Your task to perform on an android device: Show me popular games on the Play Store Image 0: 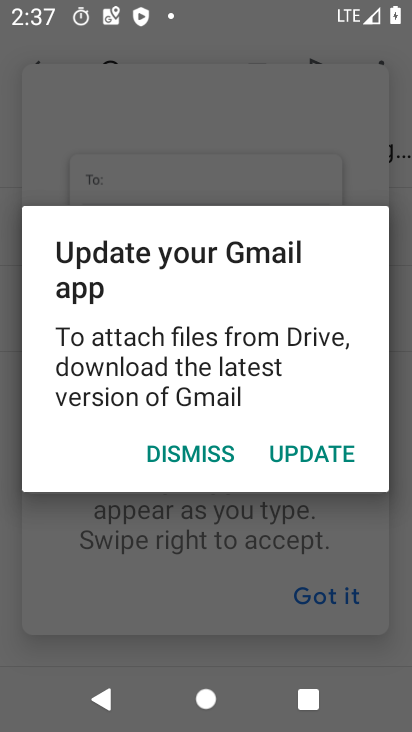
Step 0: drag from (369, 520) to (378, 334)
Your task to perform on an android device: Show me popular games on the Play Store Image 1: 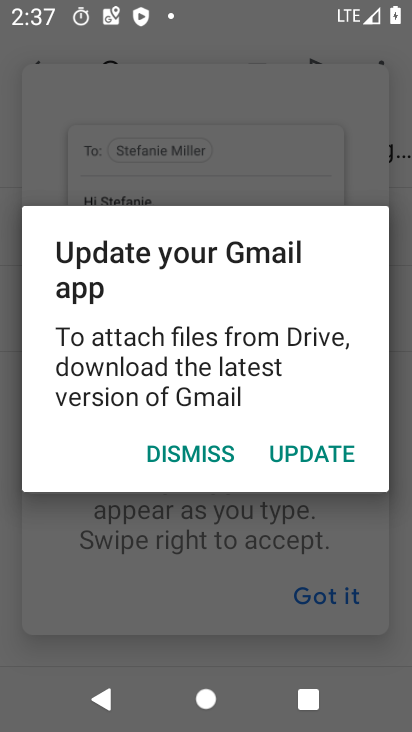
Step 1: press home button
Your task to perform on an android device: Show me popular games on the Play Store Image 2: 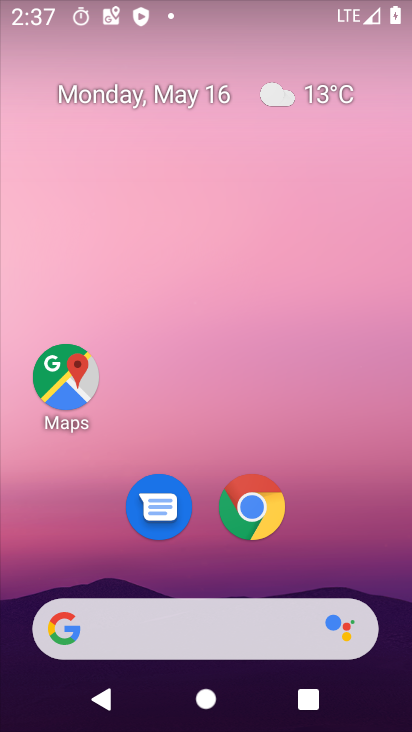
Step 2: drag from (368, 528) to (380, 129)
Your task to perform on an android device: Show me popular games on the Play Store Image 3: 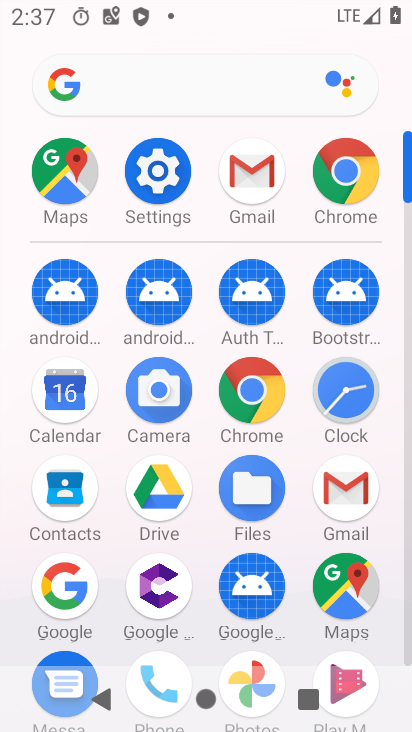
Step 3: drag from (201, 641) to (196, 278)
Your task to perform on an android device: Show me popular games on the Play Store Image 4: 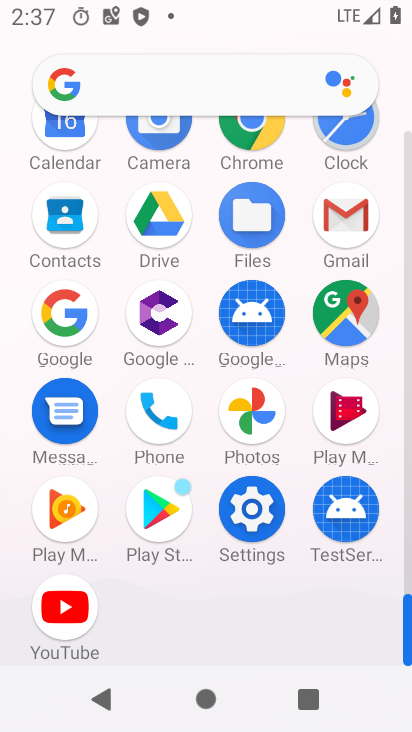
Step 4: click (163, 529)
Your task to perform on an android device: Show me popular games on the Play Store Image 5: 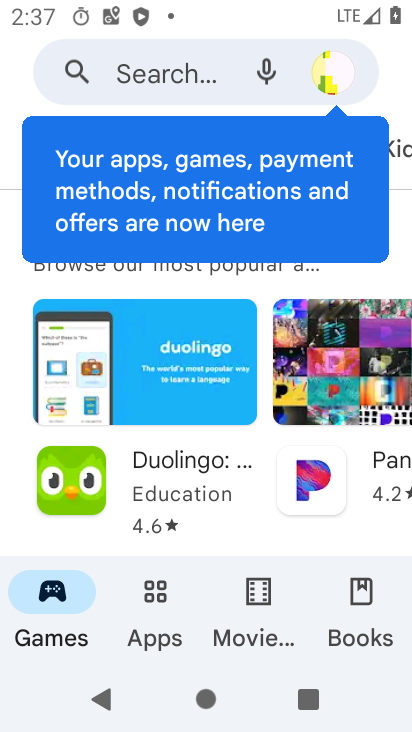
Step 5: task complete